Your task to perform on an android device: open app "VLC for Android" (install if not already installed), go to login, and select forgot password Image 0: 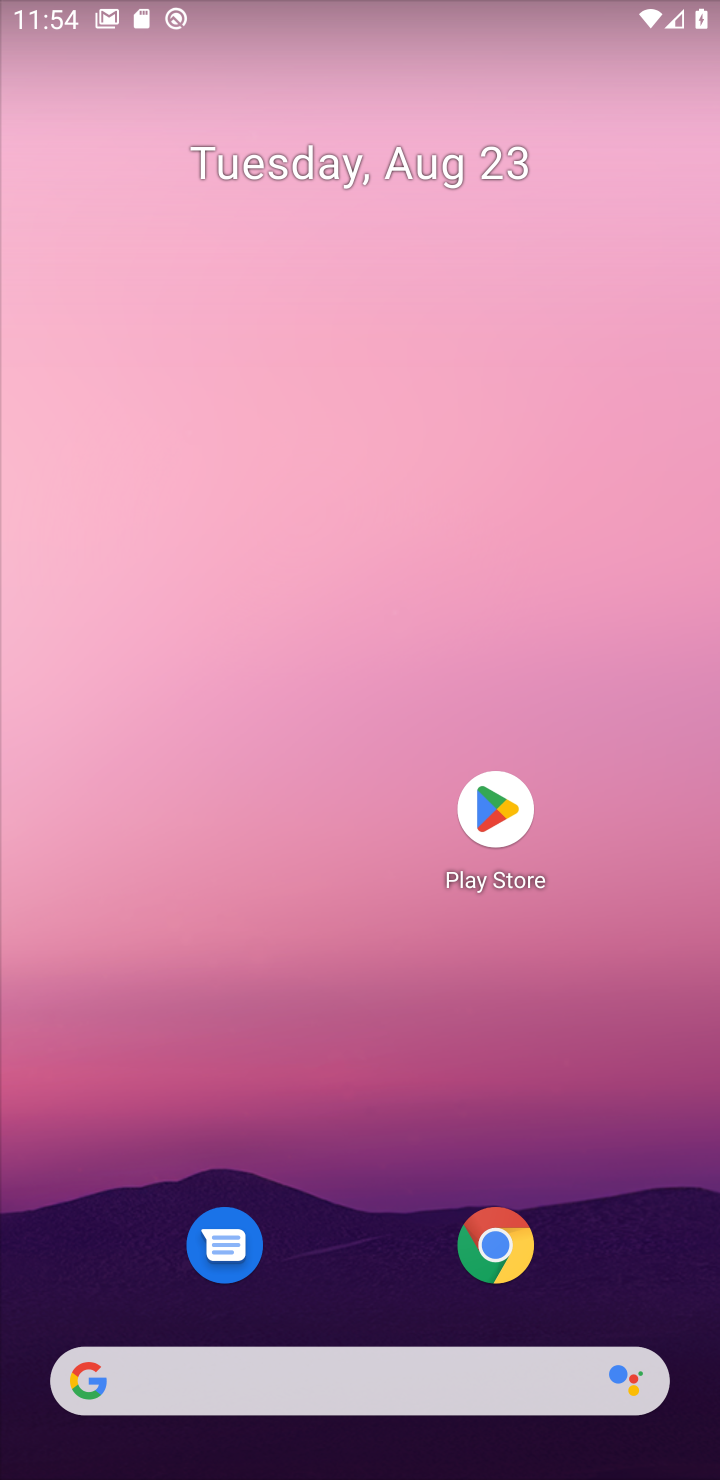
Step 0: press home button
Your task to perform on an android device: open app "VLC for Android" (install if not already installed), go to login, and select forgot password Image 1: 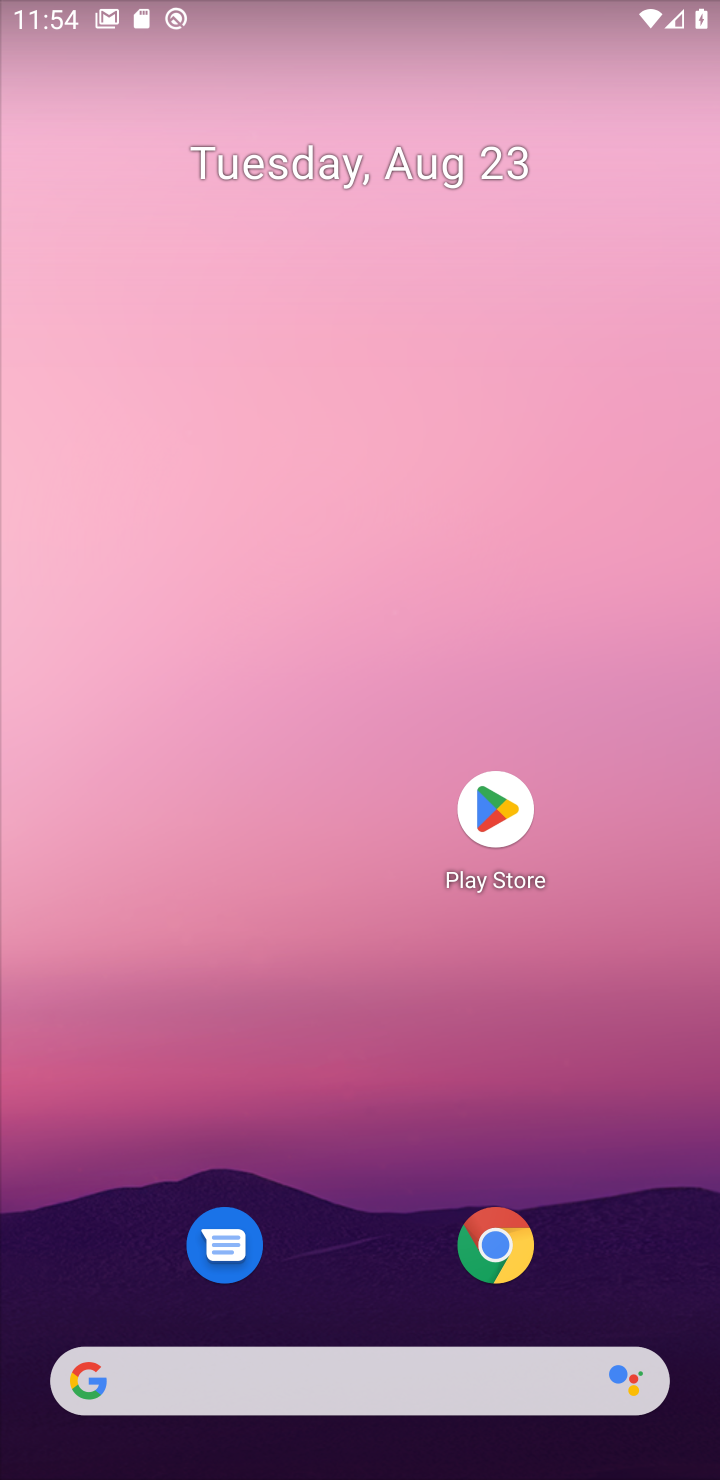
Step 1: press home button
Your task to perform on an android device: open app "VLC for Android" (install if not already installed), go to login, and select forgot password Image 2: 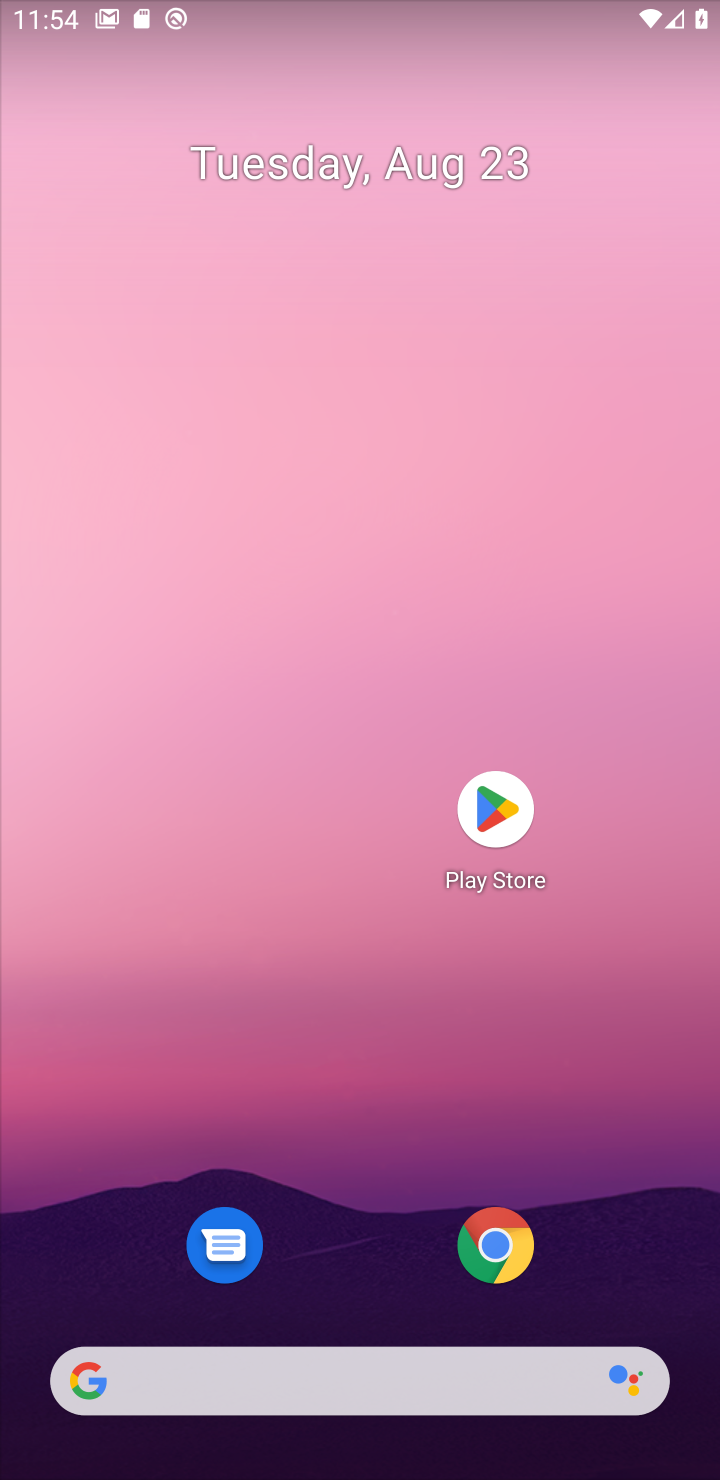
Step 2: click (484, 818)
Your task to perform on an android device: open app "VLC for Android" (install if not already installed), go to login, and select forgot password Image 3: 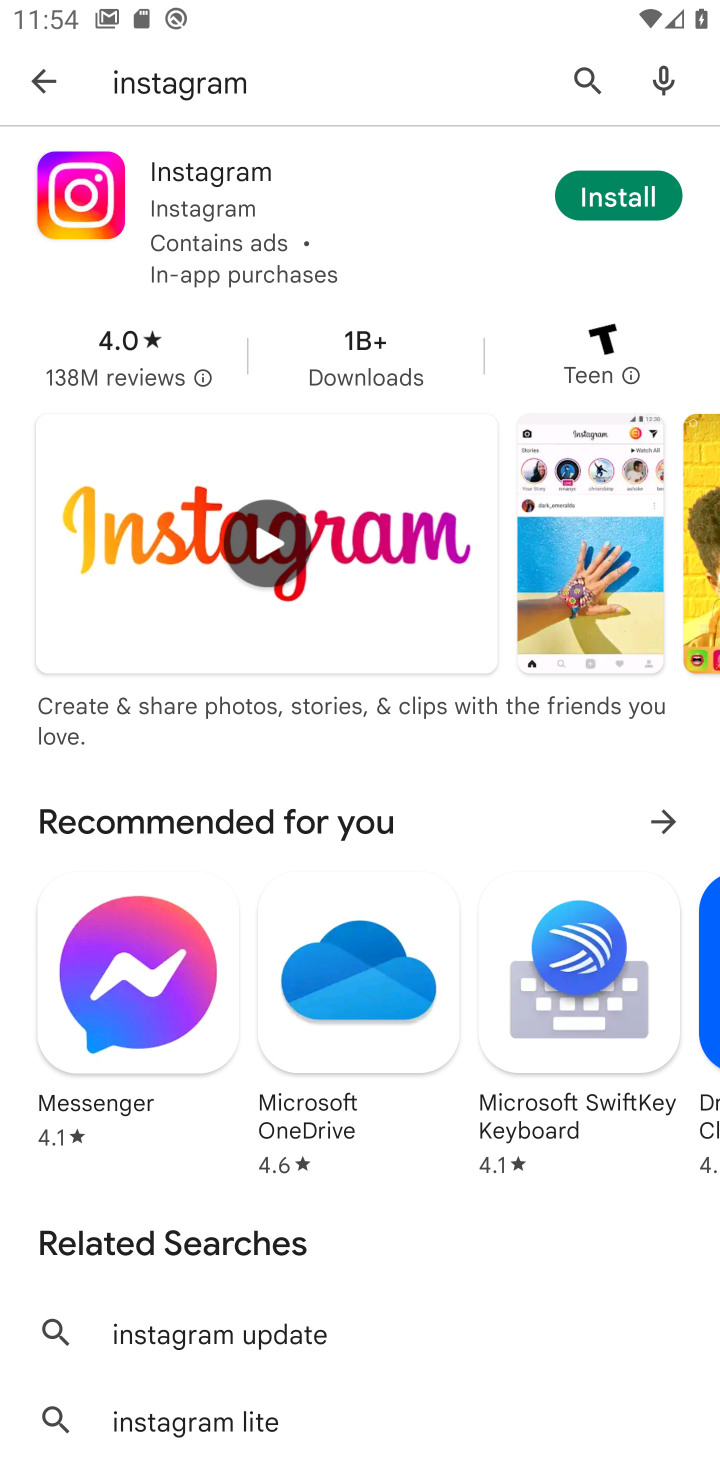
Step 3: click (583, 73)
Your task to perform on an android device: open app "VLC for Android" (install if not already installed), go to login, and select forgot password Image 4: 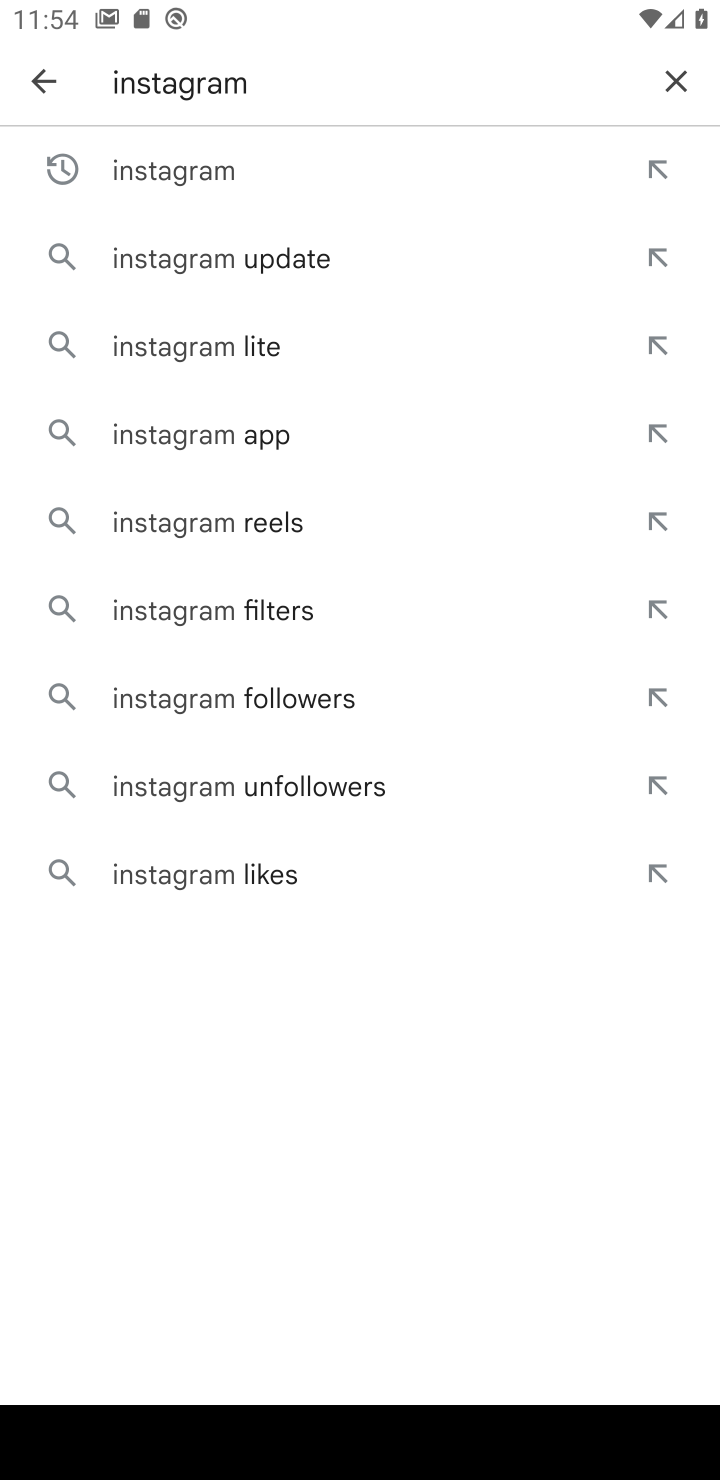
Step 4: click (678, 75)
Your task to perform on an android device: open app "VLC for Android" (install if not already installed), go to login, and select forgot password Image 5: 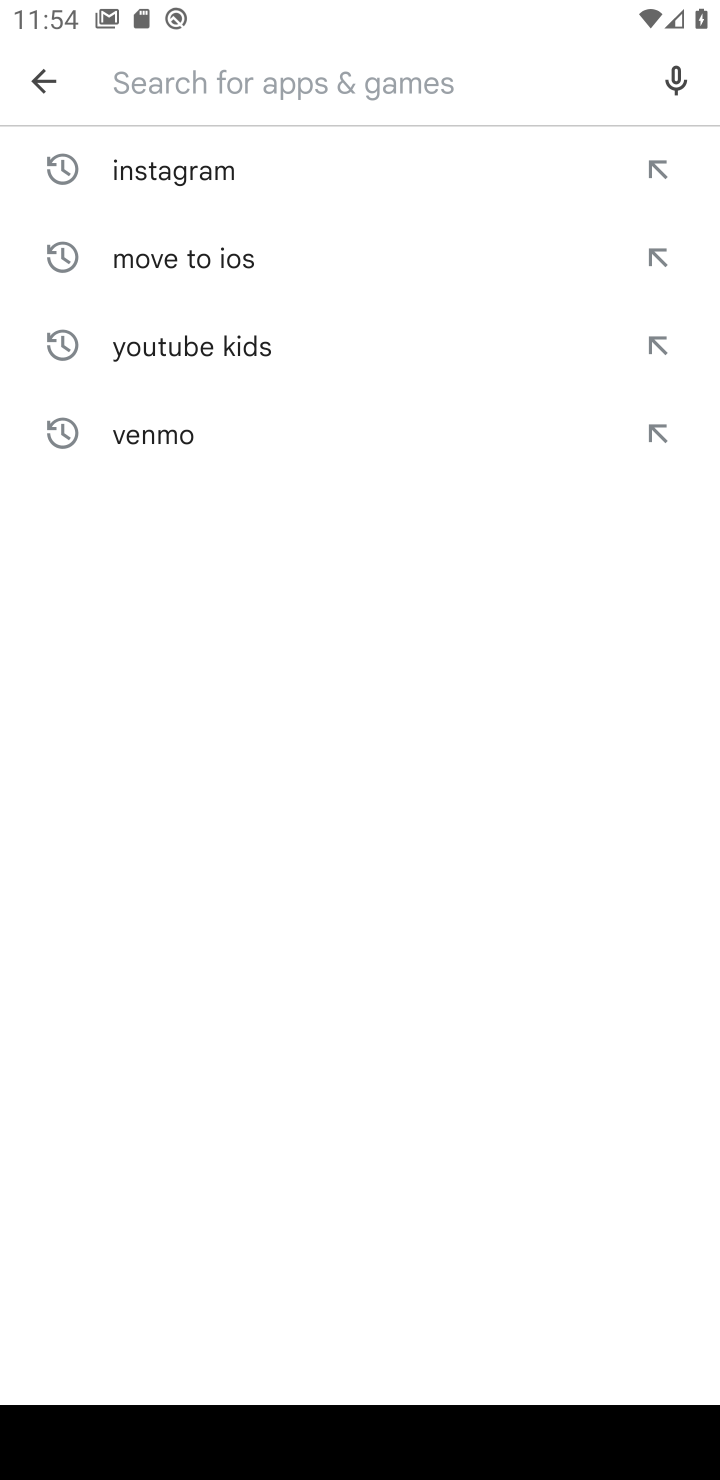
Step 5: type "VLC for Android"
Your task to perform on an android device: open app "VLC for Android" (install if not already installed), go to login, and select forgot password Image 6: 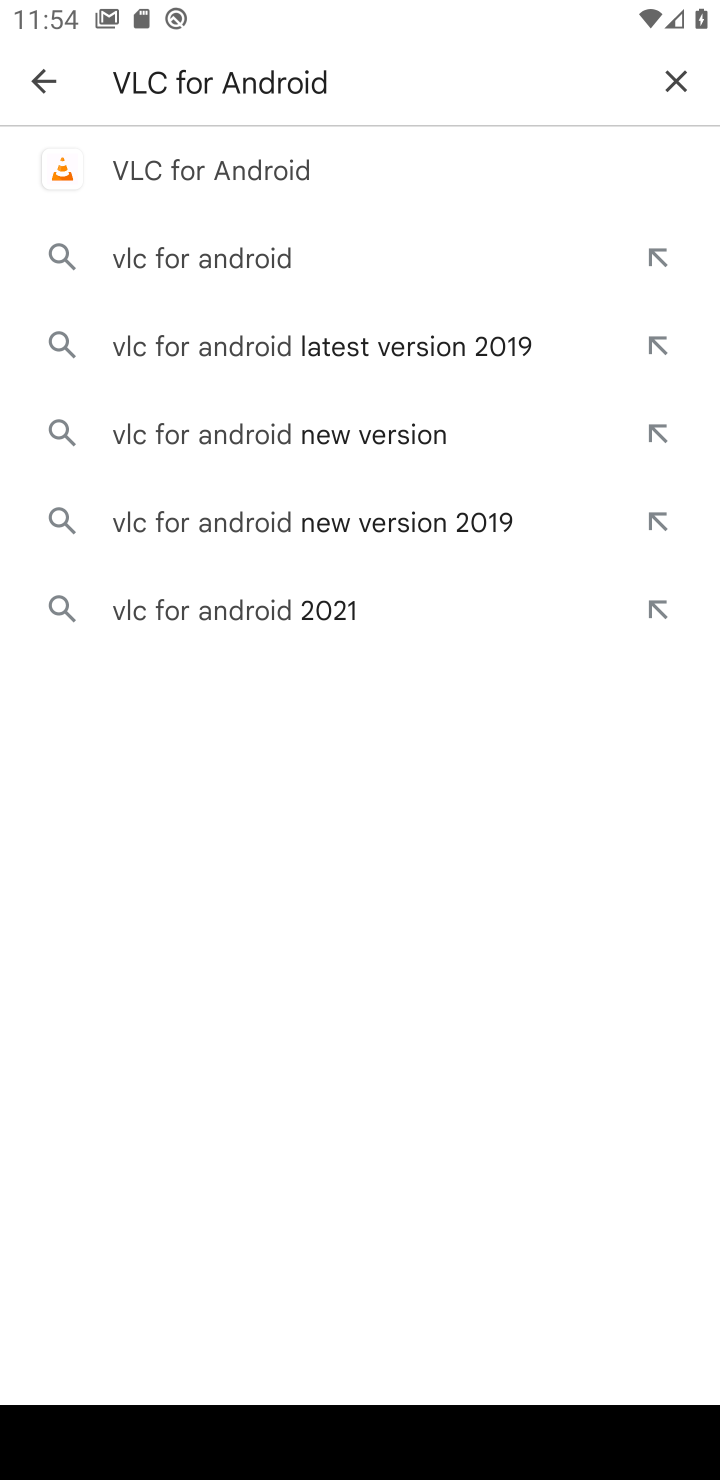
Step 6: click (238, 171)
Your task to perform on an android device: open app "VLC for Android" (install if not already installed), go to login, and select forgot password Image 7: 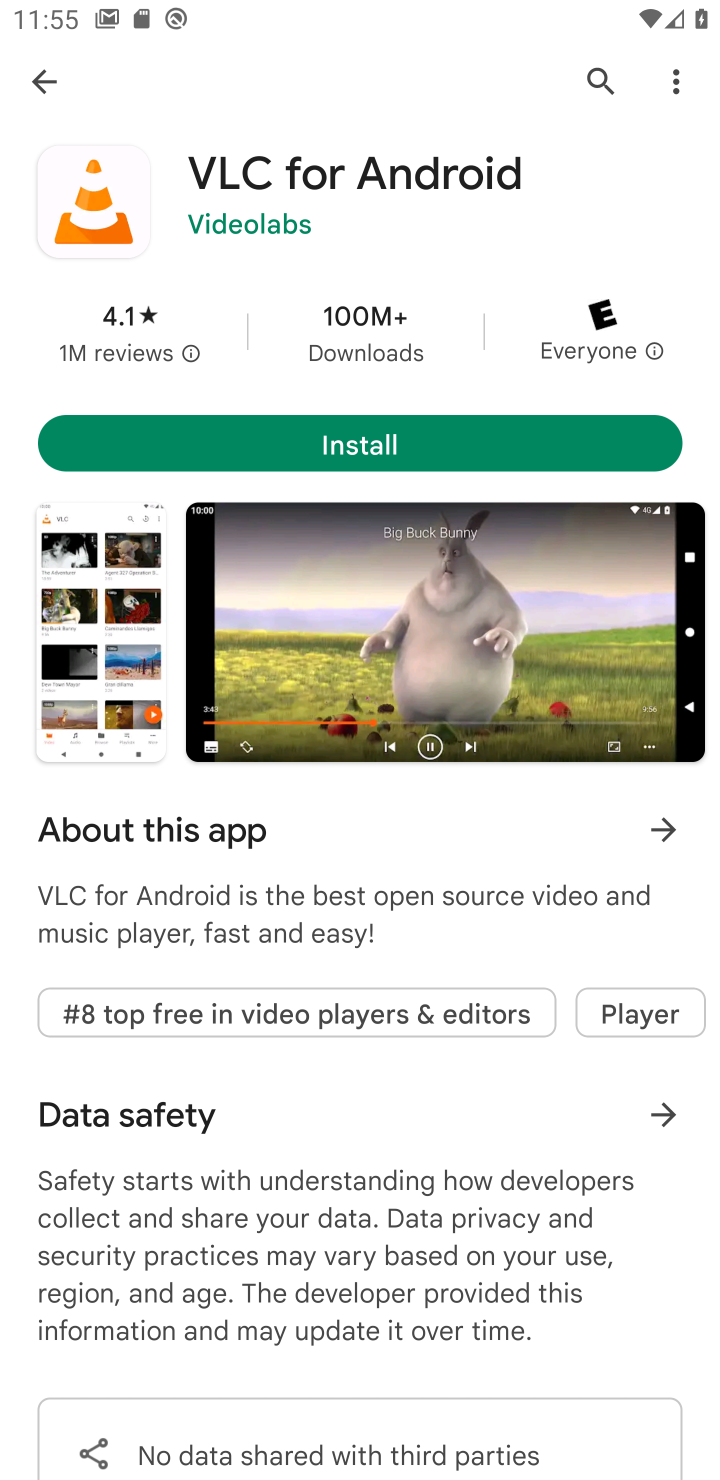
Step 7: click (354, 455)
Your task to perform on an android device: open app "VLC for Android" (install if not already installed), go to login, and select forgot password Image 8: 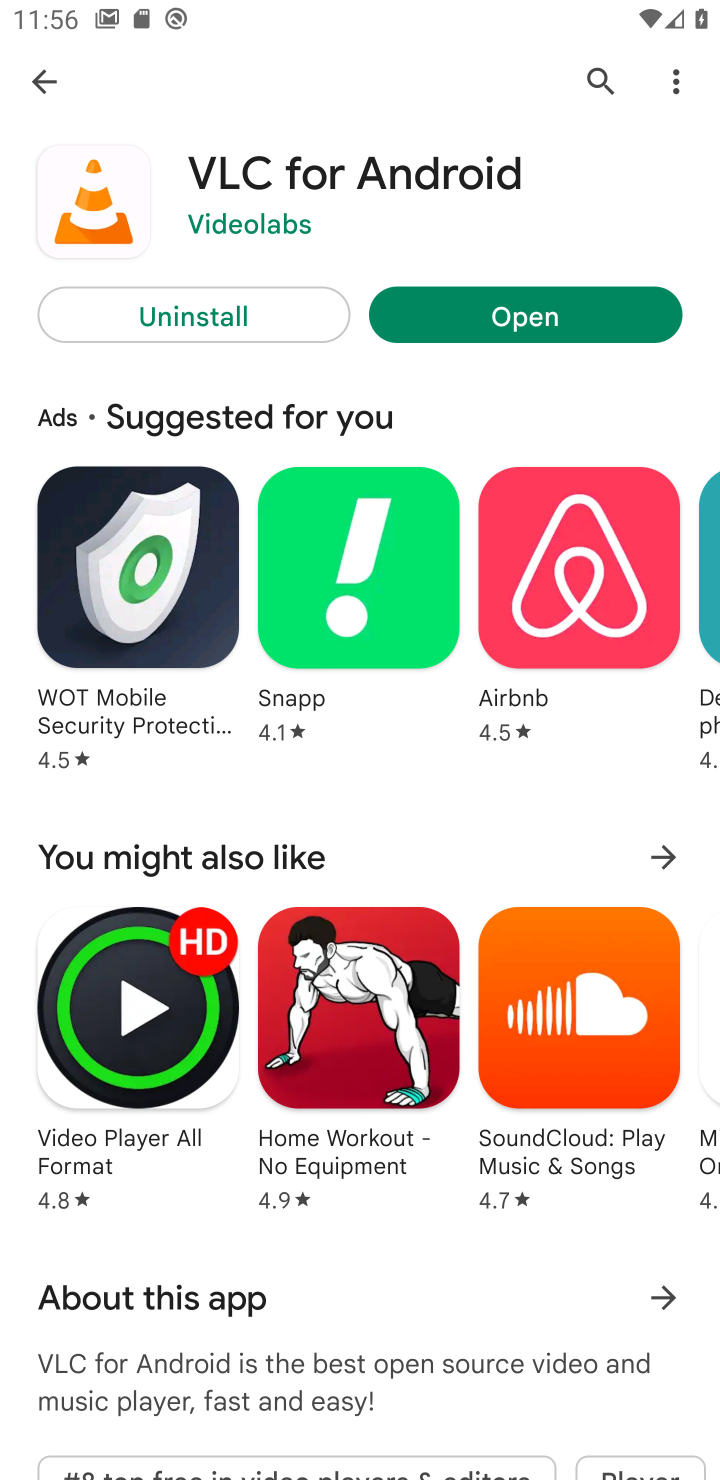
Step 8: click (534, 323)
Your task to perform on an android device: open app "VLC for Android" (install if not already installed), go to login, and select forgot password Image 9: 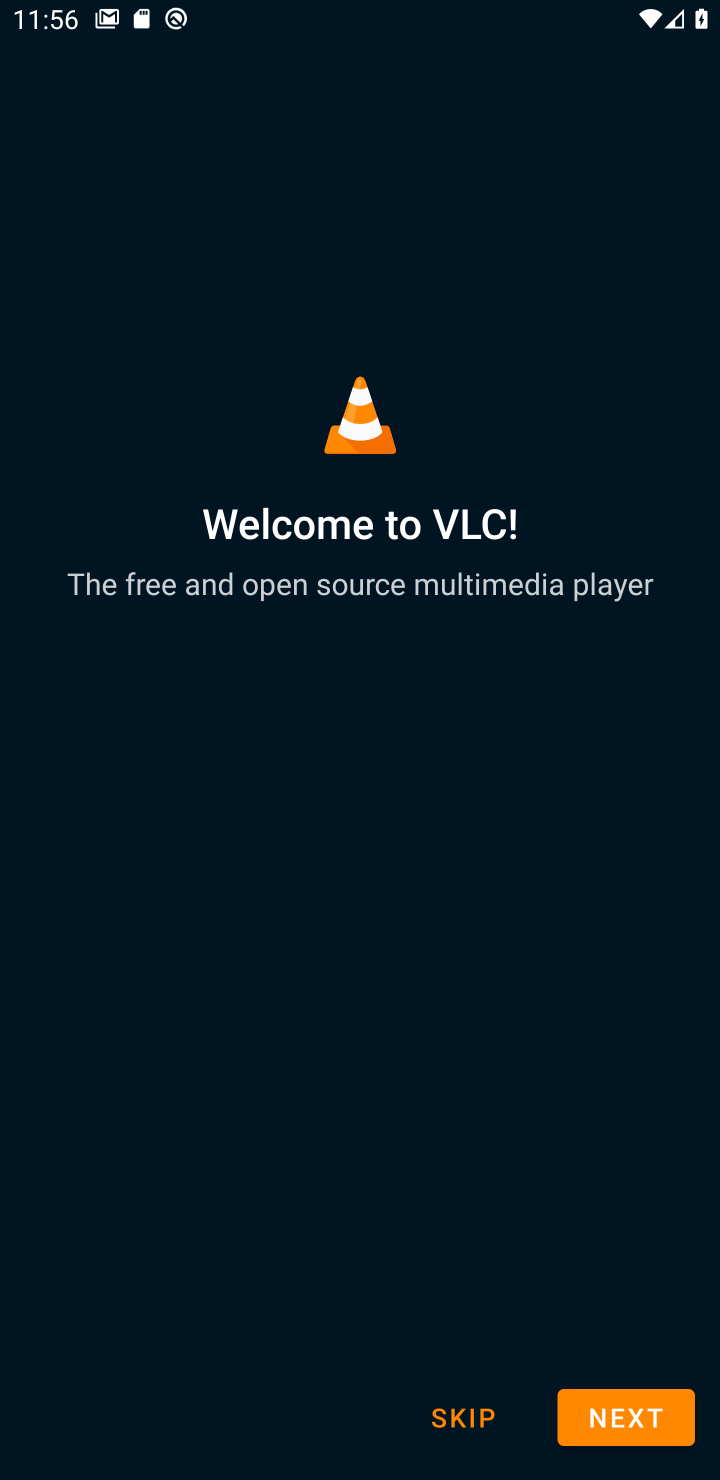
Step 9: task complete